Your task to perform on an android device: check out phone information Image 0: 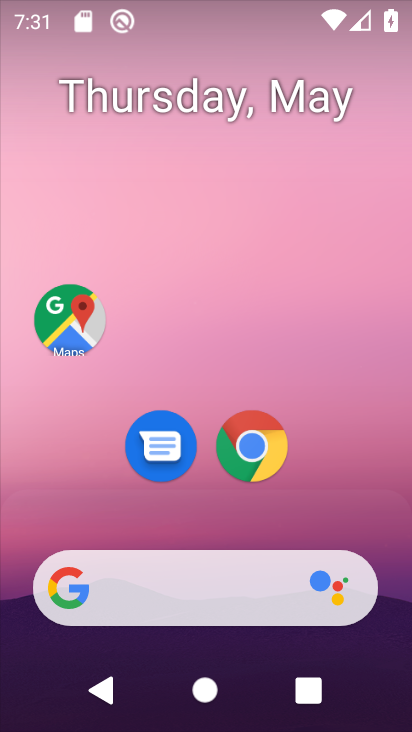
Step 0: drag from (232, 502) to (172, 199)
Your task to perform on an android device: check out phone information Image 1: 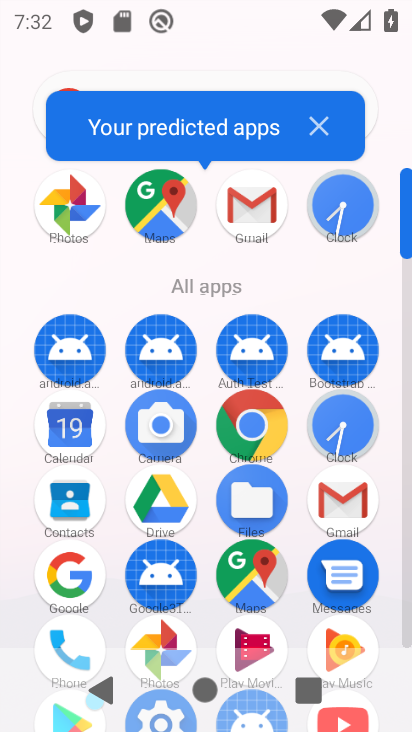
Step 1: drag from (208, 469) to (215, 388)
Your task to perform on an android device: check out phone information Image 2: 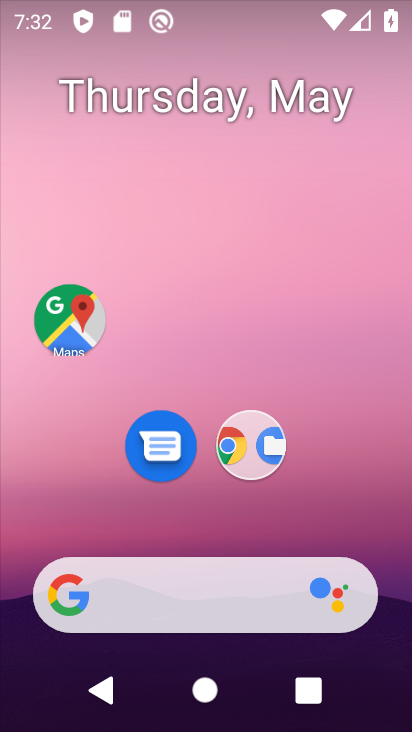
Step 2: drag from (294, 636) to (306, 161)
Your task to perform on an android device: check out phone information Image 3: 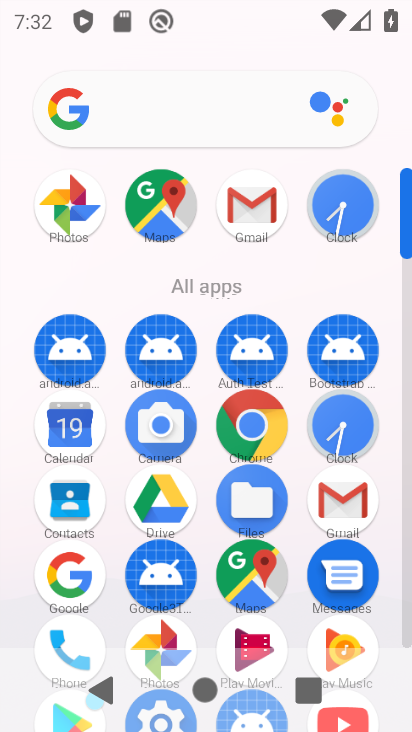
Step 3: drag from (111, 528) to (146, 336)
Your task to perform on an android device: check out phone information Image 4: 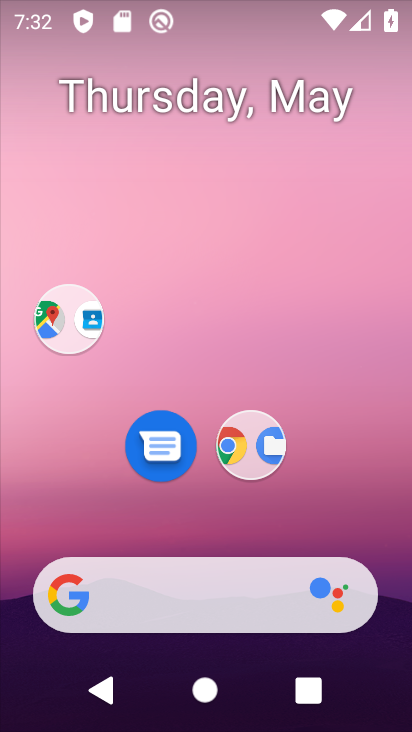
Step 4: click (177, 217)
Your task to perform on an android device: check out phone information Image 5: 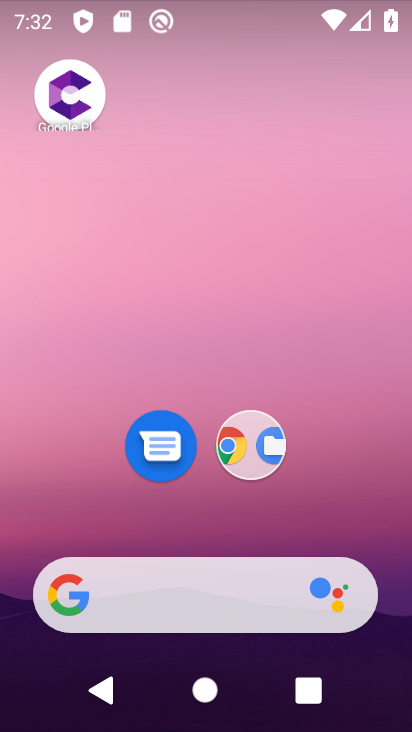
Step 5: drag from (233, 628) to (117, 125)
Your task to perform on an android device: check out phone information Image 6: 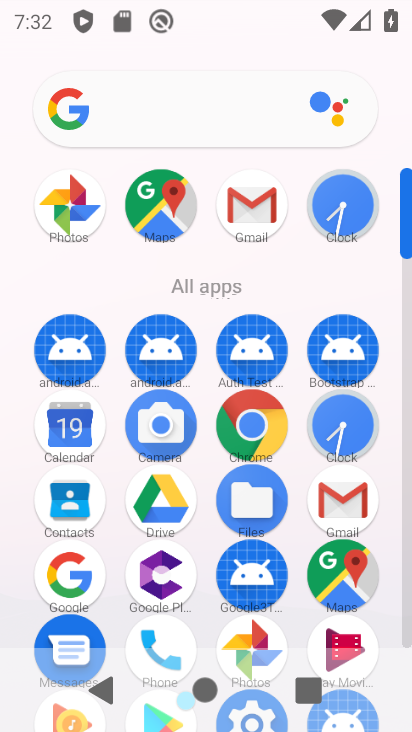
Step 6: drag from (107, 525) to (66, 286)
Your task to perform on an android device: check out phone information Image 7: 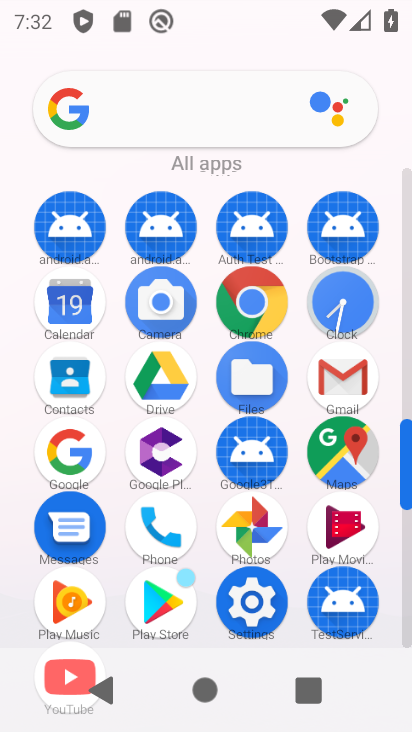
Step 7: click (260, 589)
Your task to perform on an android device: check out phone information Image 8: 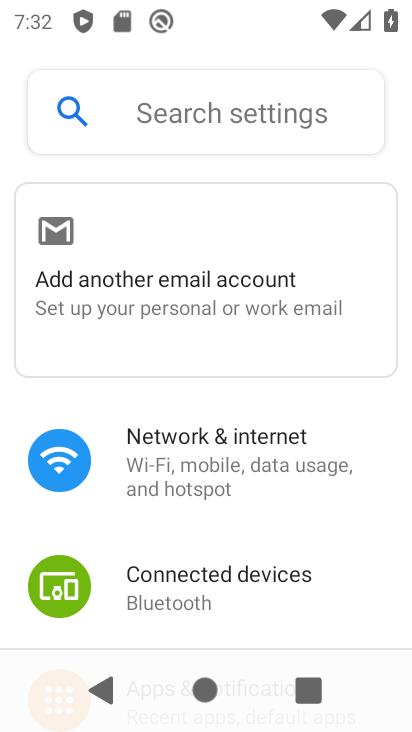
Step 8: click (129, 127)
Your task to perform on an android device: check out phone information Image 9: 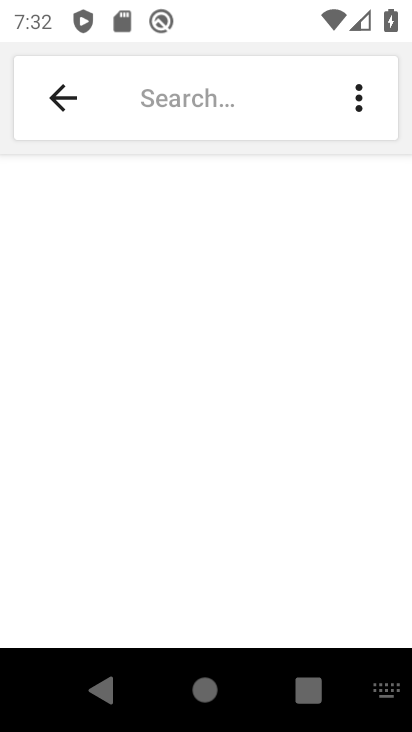
Step 9: click (403, 716)
Your task to perform on an android device: check out phone information Image 10: 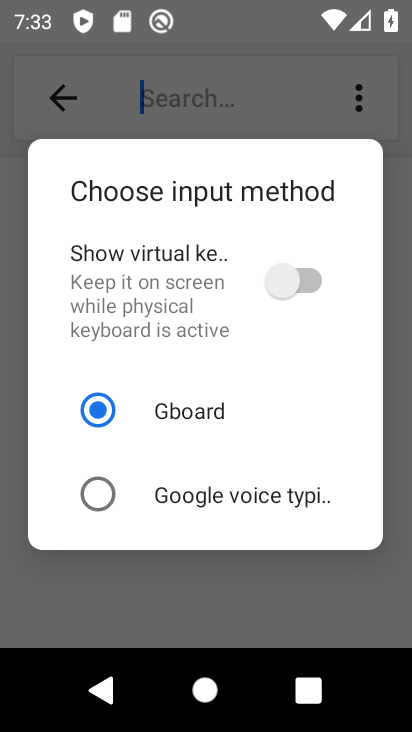
Step 10: drag from (384, 698) to (284, 372)
Your task to perform on an android device: check out phone information Image 11: 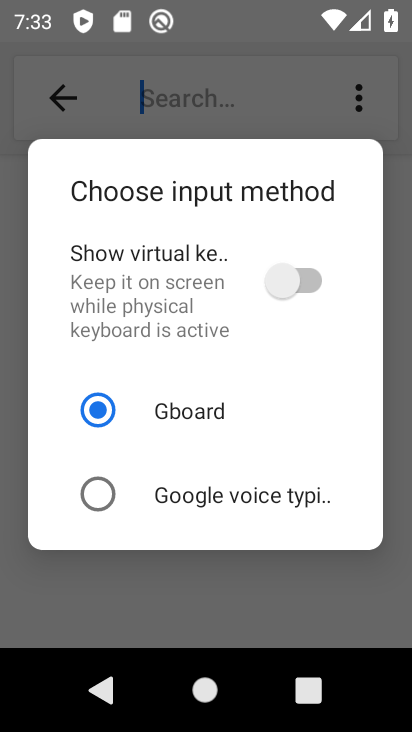
Step 11: click (291, 272)
Your task to perform on an android device: check out phone information Image 12: 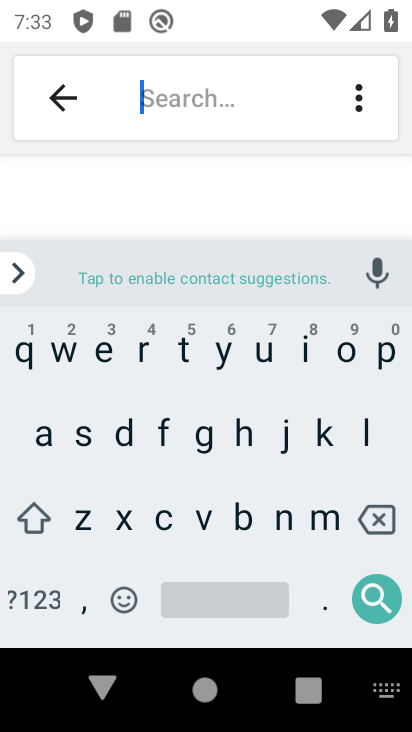
Step 12: click (31, 432)
Your task to perform on an android device: check out phone information Image 13: 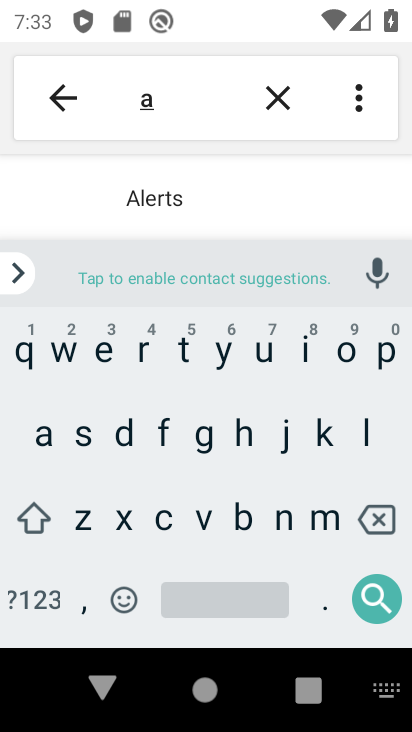
Step 13: click (245, 518)
Your task to perform on an android device: check out phone information Image 14: 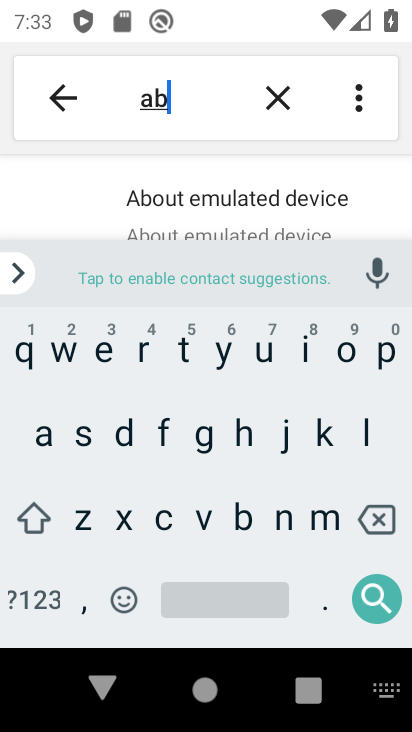
Step 14: click (185, 207)
Your task to perform on an android device: check out phone information Image 15: 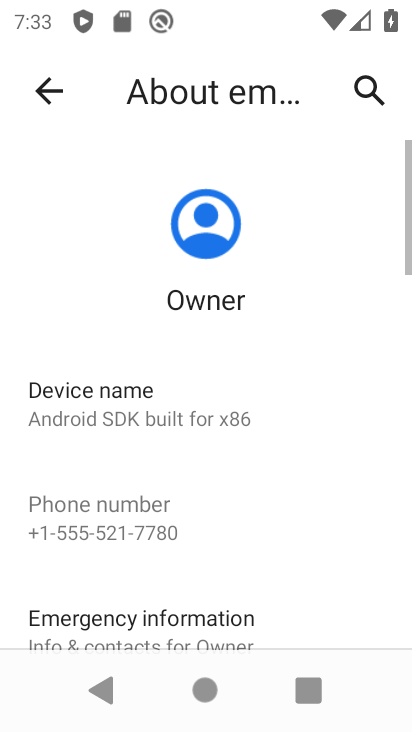
Step 15: task complete